Your task to perform on an android device: Empty the shopping cart on newegg. Search for "usb-b" on newegg, select the first entry, and add it to the cart. Image 0: 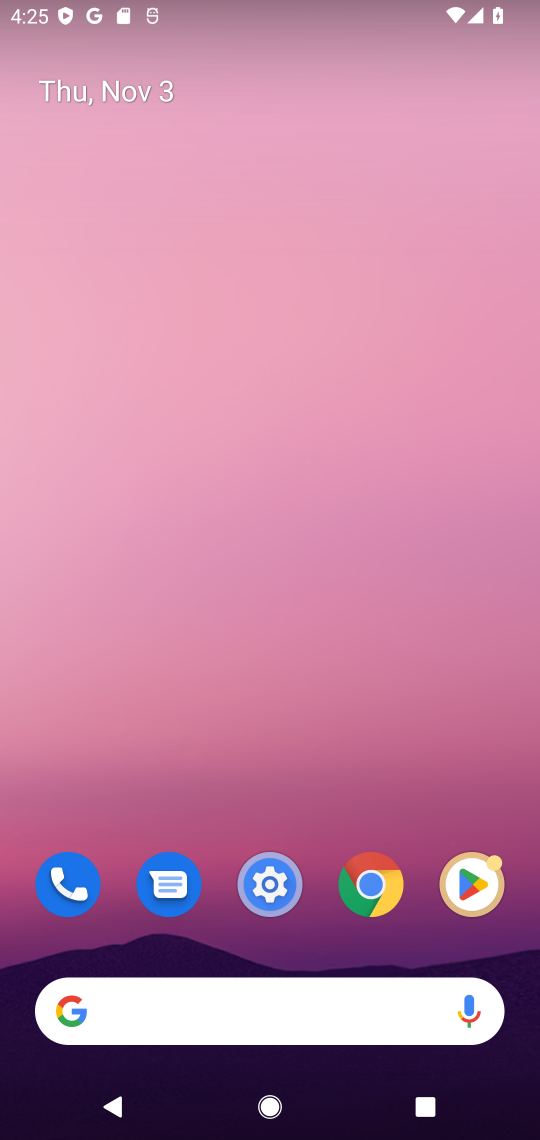
Step 0: press home button
Your task to perform on an android device: Empty the shopping cart on newegg. Search for "usb-b" on newegg, select the first entry, and add it to the cart. Image 1: 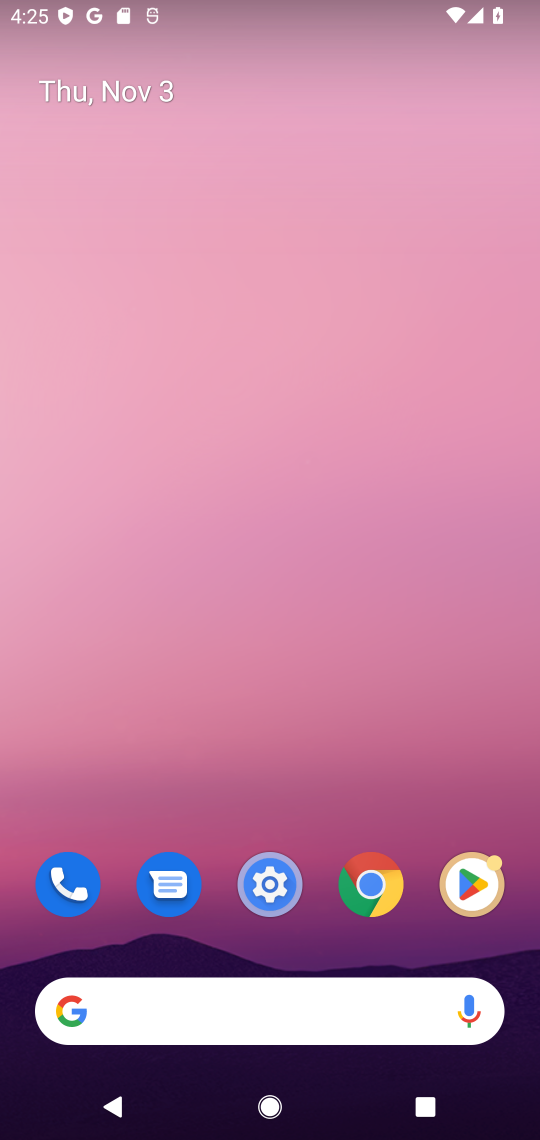
Step 1: click (110, 1013)
Your task to perform on an android device: Empty the shopping cart on newegg. Search for "usb-b" on newegg, select the first entry, and add it to the cart. Image 2: 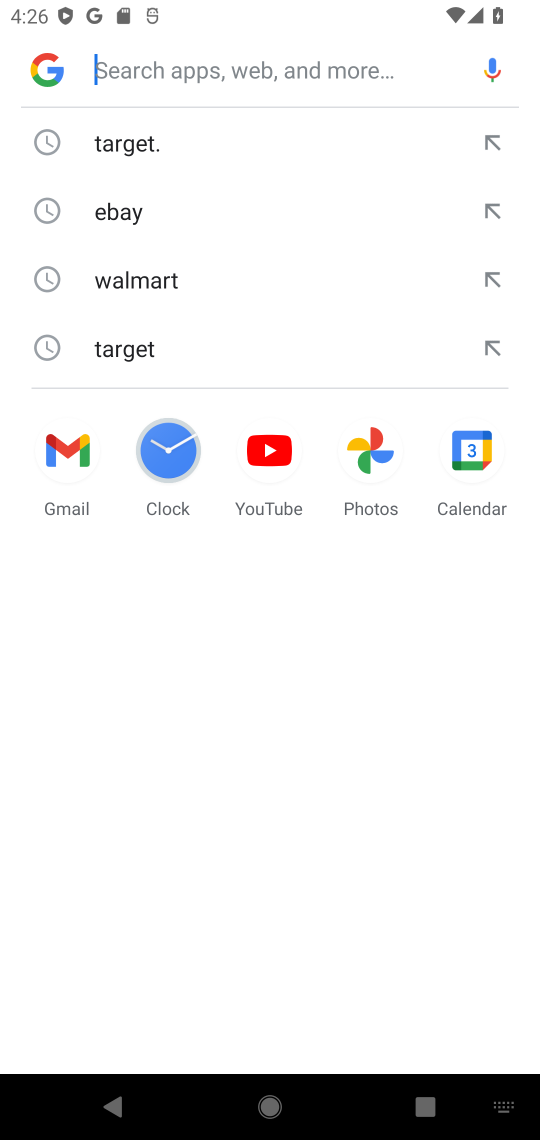
Step 2: type "newegg"
Your task to perform on an android device: Empty the shopping cart on newegg. Search for "usb-b" on newegg, select the first entry, and add it to the cart. Image 3: 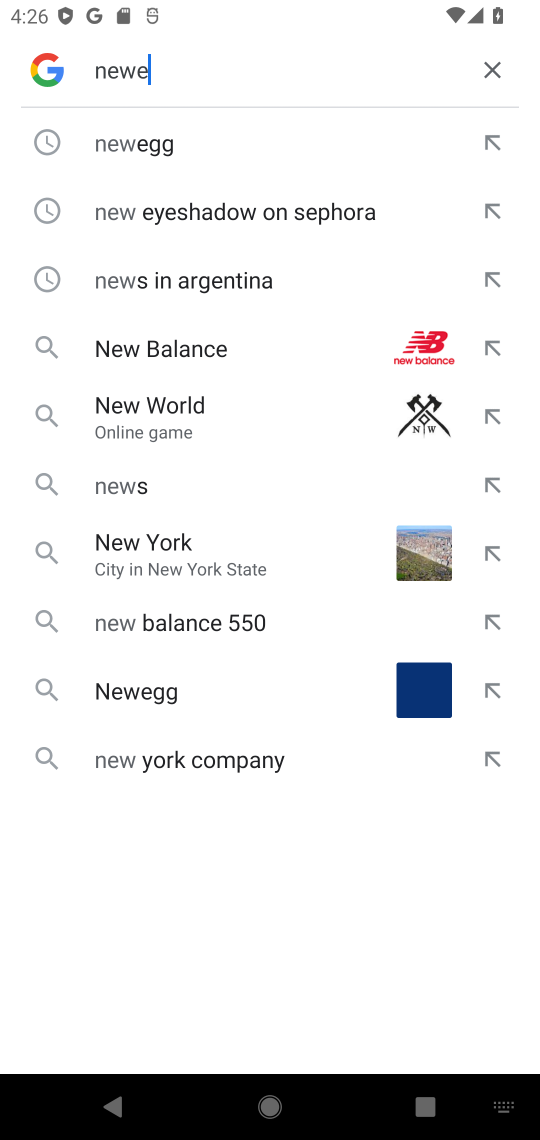
Step 3: press enter
Your task to perform on an android device: Empty the shopping cart on newegg. Search for "usb-b" on newegg, select the first entry, and add it to the cart. Image 4: 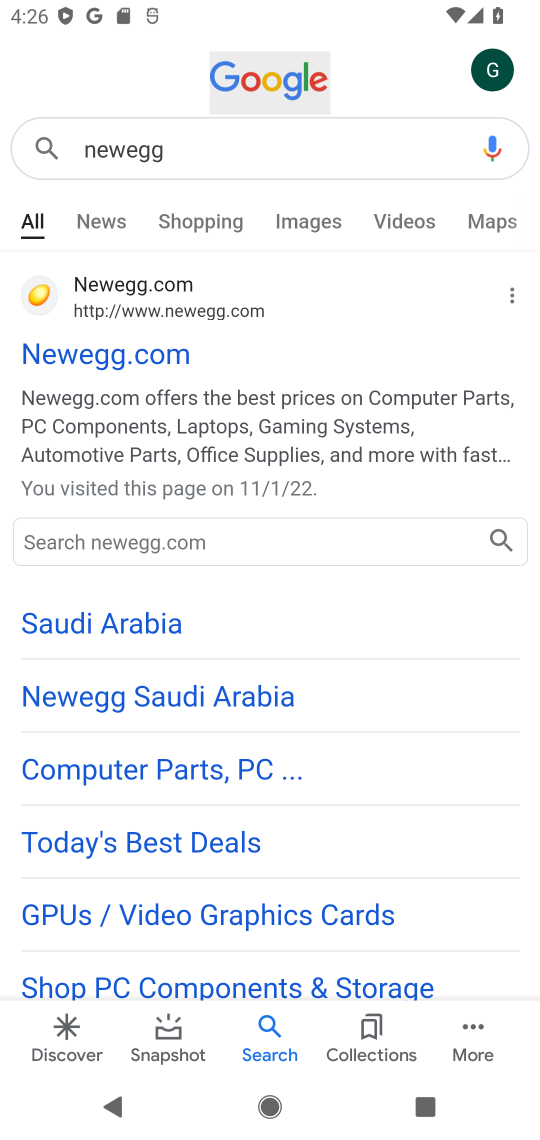
Step 4: click (118, 354)
Your task to perform on an android device: Empty the shopping cart on newegg. Search for "usb-b" on newegg, select the first entry, and add it to the cart. Image 5: 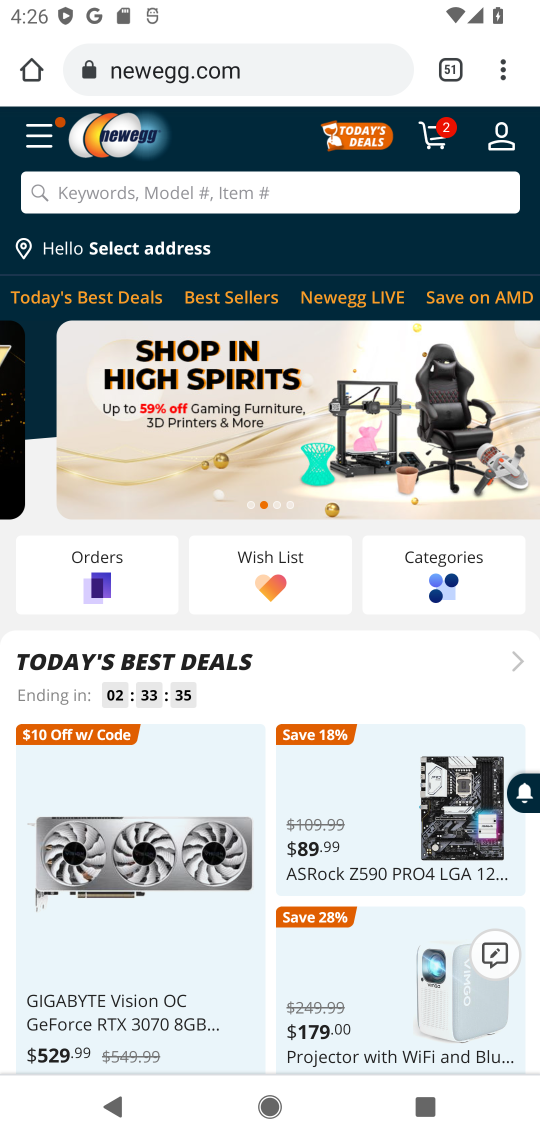
Step 5: click (435, 125)
Your task to perform on an android device: Empty the shopping cart on newegg. Search for "usb-b" on newegg, select the first entry, and add it to the cart. Image 6: 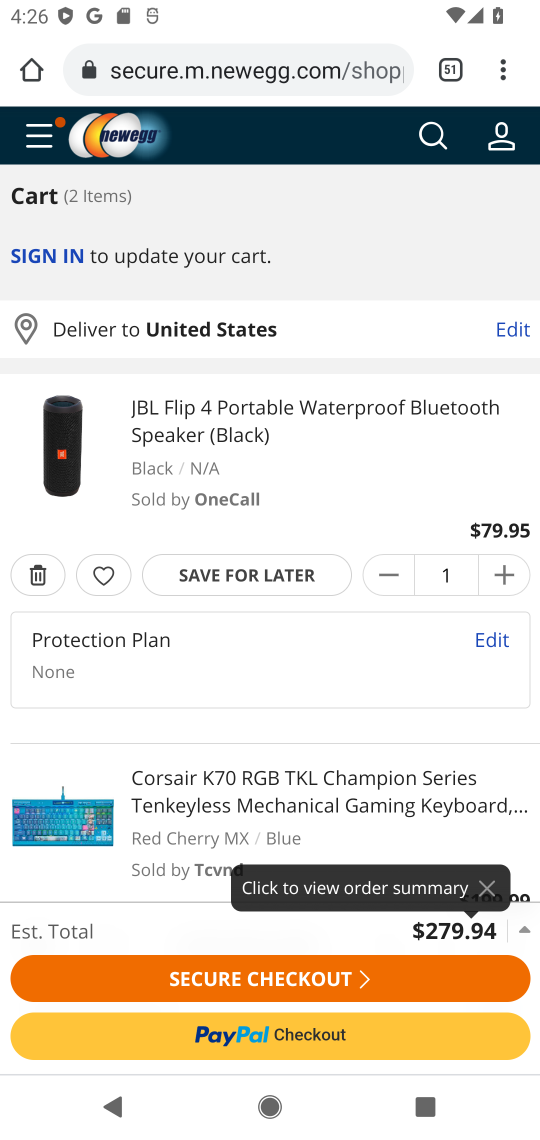
Step 6: click (36, 575)
Your task to perform on an android device: Empty the shopping cart on newegg. Search for "usb-b" on newegg, select the first entry, and add it to the cart. Image 7: 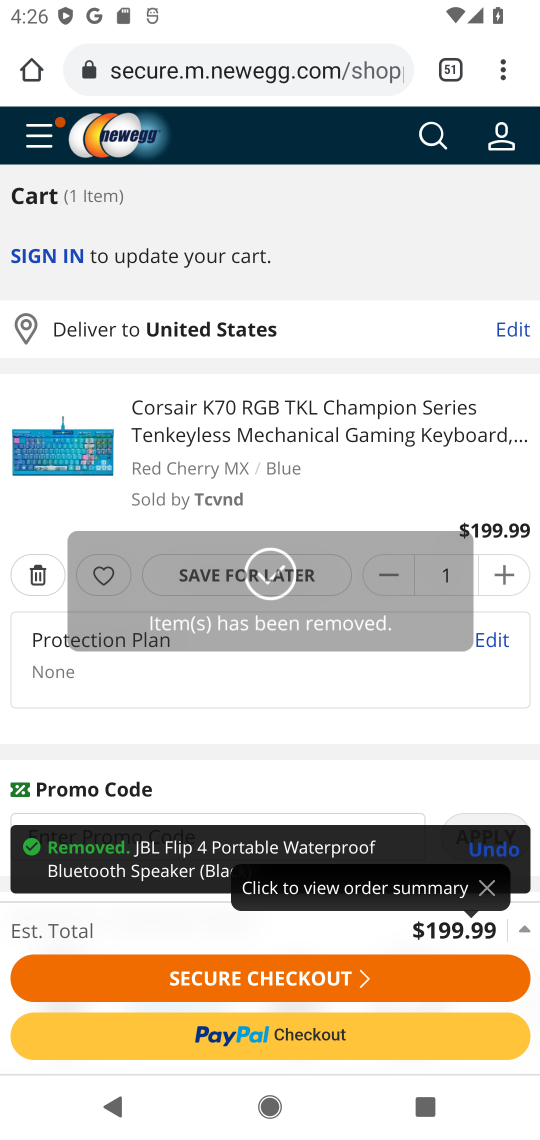
Step 7: click (36, 575)
Your task to perform on an android device: Empty the shopping cart on newegg. Search for "usb-b" on newegg, select the first entry, and add it to the cart. Image 8: 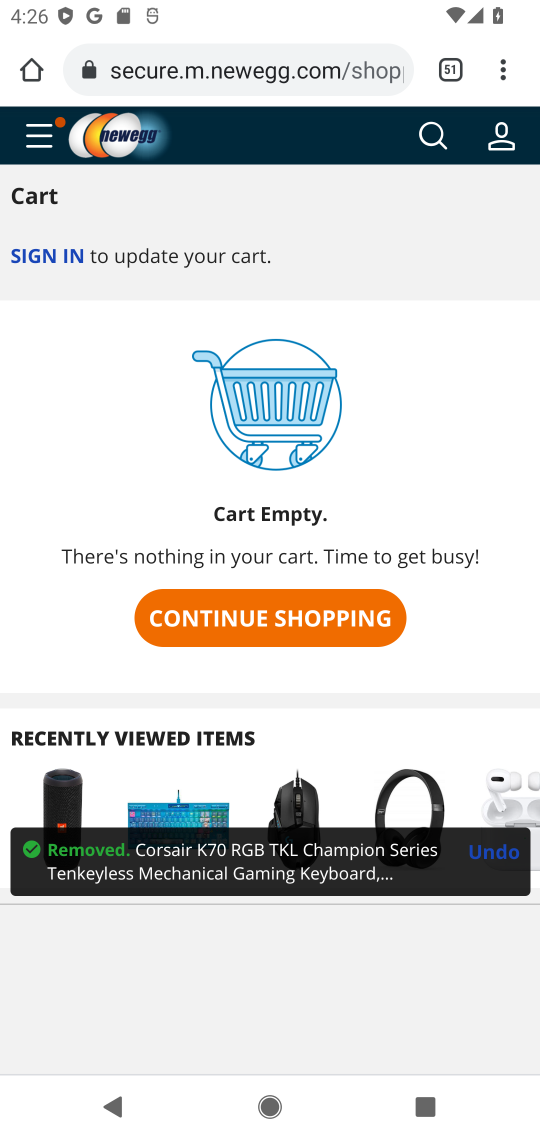
Step 8: click (433, 129)
Your task to perform on an android device: Empty the shopping cart on newegg. Search for "usb-b" on newegg, select the first entry, and add it to the cart. Image 9: 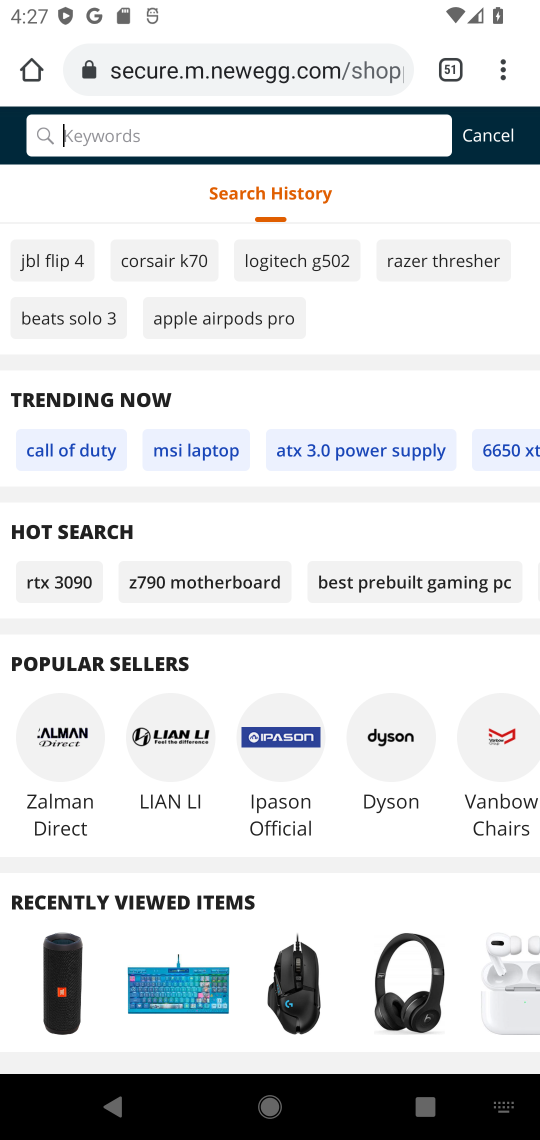
Step 9: type "usb-b"
Your task to perform on an android device: Empty the shopping cart on newegg. Search for "usb-b" on newegg, select the first entry, and add it to the cart. Image 10: 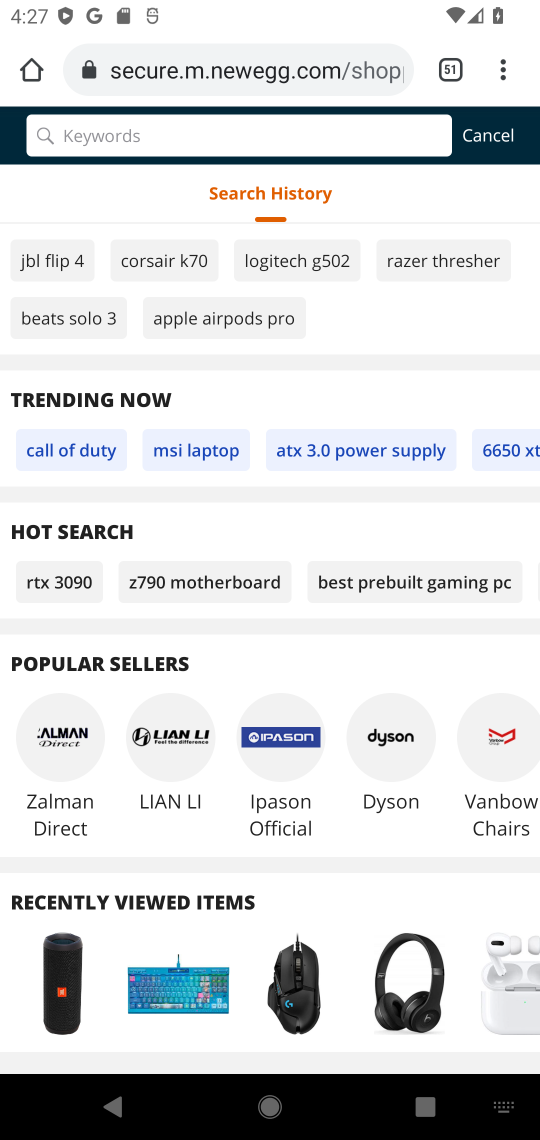
Step 10: press enter
Your task to perform on an android device: Empty the shopping cart on newegg. Search for "usb-b" on newegg, select the first entry, and add it to the cart. Image 11: 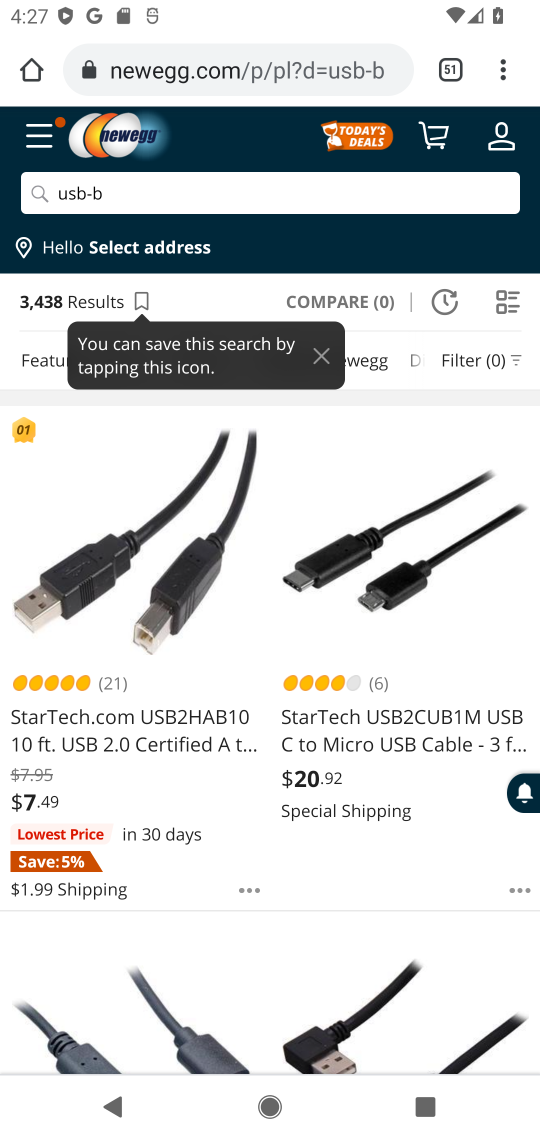
Step 11: drag from (300, 908) to (352, 537)
Your task to perform on an android device: Empty the shopping cart on newegg. Search for "usb-b" on newegg, select the first entry, and add it to the cart. Image 12: 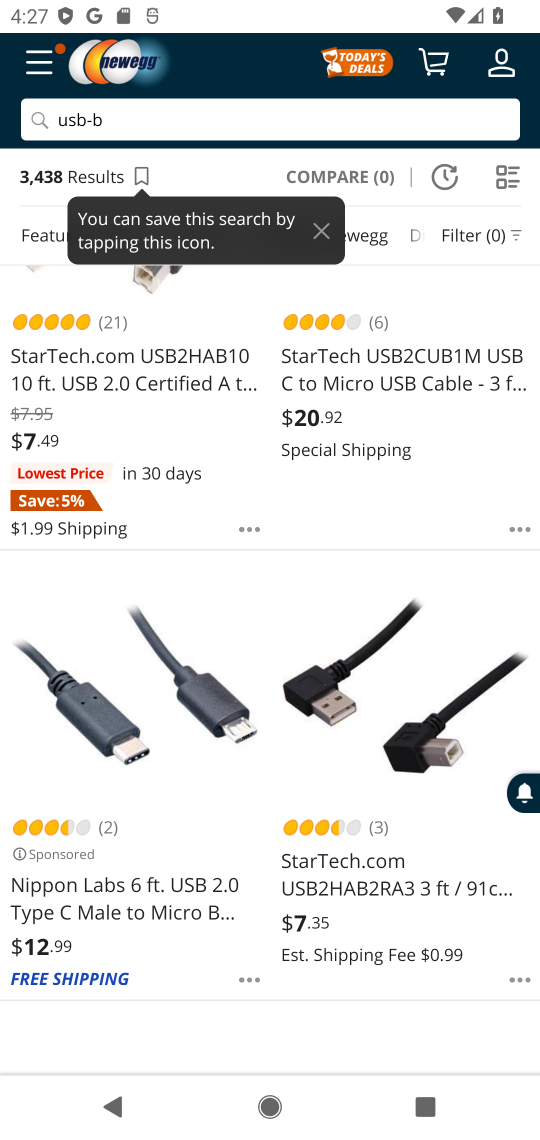
Step 12: drag from (330, 929) to (375, 615)
Your task to perform on an android device: Empty the shopping cart on newegg. Search for "usb-b" on newegg, select the first entry, and add it to the cart. Image 13: 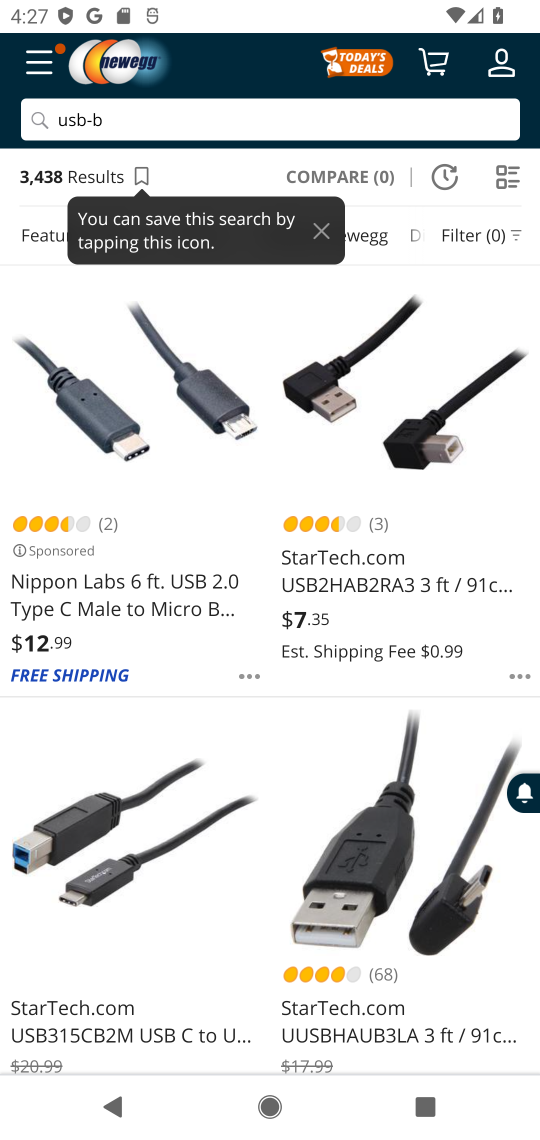
Step 13: drag from (363, 961) to (365, 627)
Your task to perform on an android device: Empty the shopping cart on newegg. Search for "usb-b" on newegg, select the first entry, and add it to the cart. Image 14: 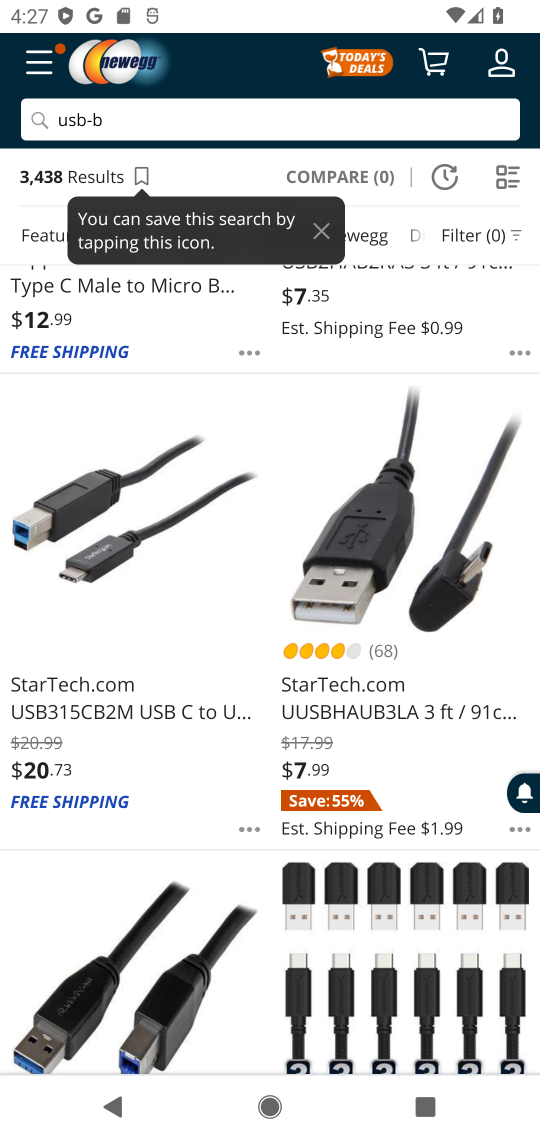
Step 14: drag from (339, 963) to (384, 612)
Your task to perform on an android device: Empty the shopping cart on newegg. Search for "usb-b" on newegg, select the first entry, and add it to the cart. Image 15: 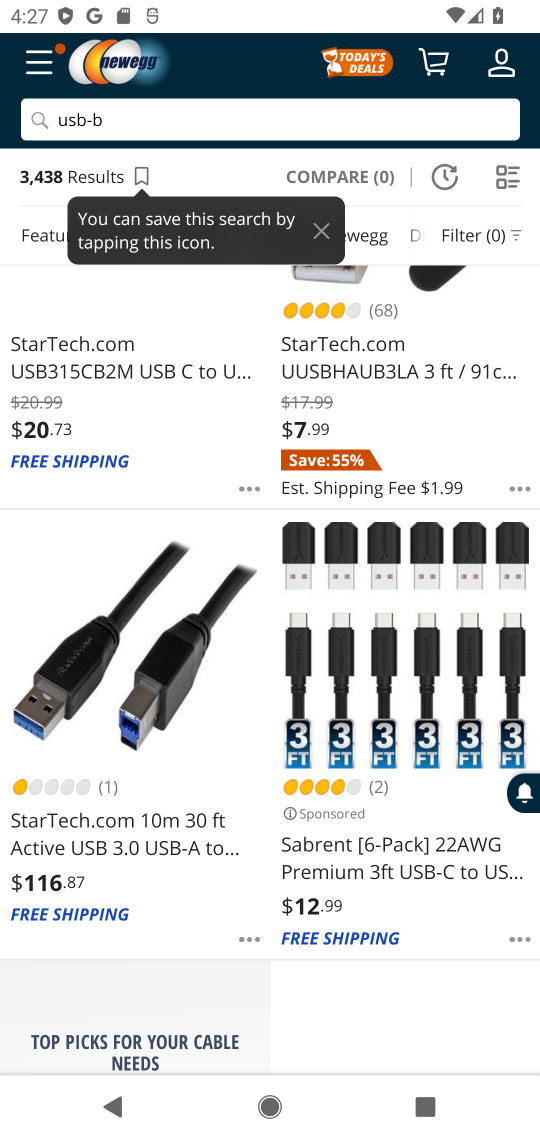
Step 15: drag from (363, 880) to (399, 530)
Your task to perform on an android device: Empty the shopping cart on newegg. Search for "usb-b" on newegg, select the first entry, and add it to the cart. Image 16: 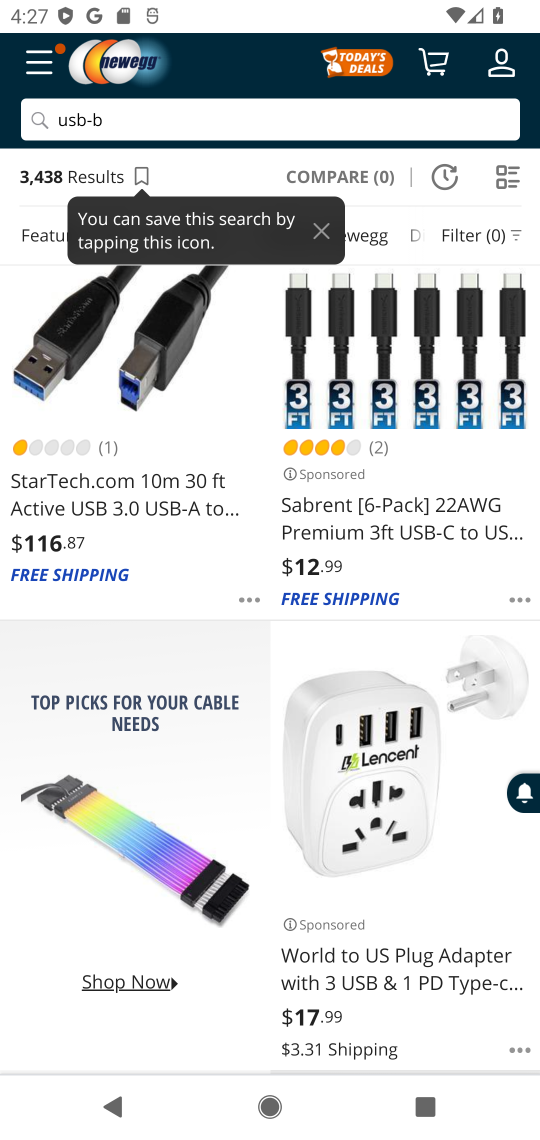
Step 16: drag from (360, 846) to (390, 474)
Your task to perform on an android device: Empty the shopping cart on newegg. Search for "usb-b" on newegg, select the first entry, and add it to the cart. Image 17: 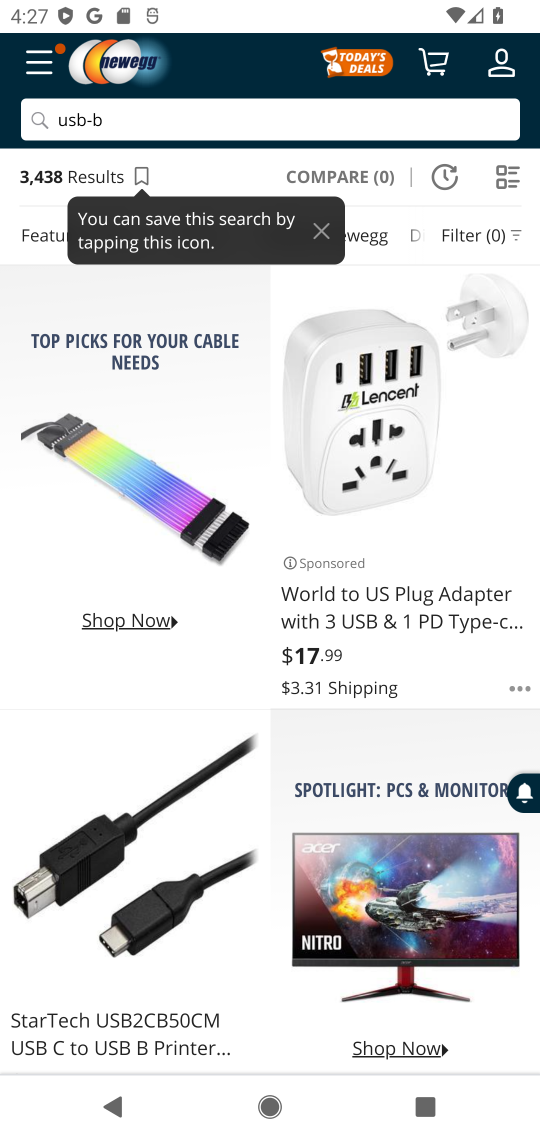
Step 17: drag from (331, 969) to (373, 565)
Your task to perform on an android device: Empty the shopping cart on newegg. Search for "usb-b" on newegg, select the first entry, and add it to the cart. Image 18: 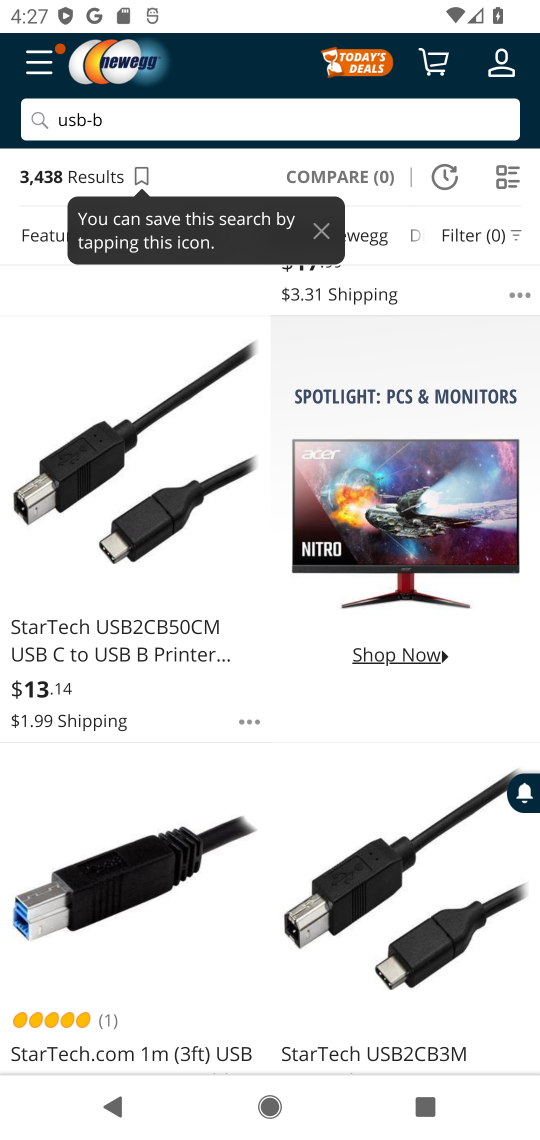
Step 18: drag from (312, 945) to (371, 587)
Your task to perform on an android device: Empty the shopping cart on newegg. Search for "usb-b" on newegg, select the first entry, and add it to the cart. Image 19: 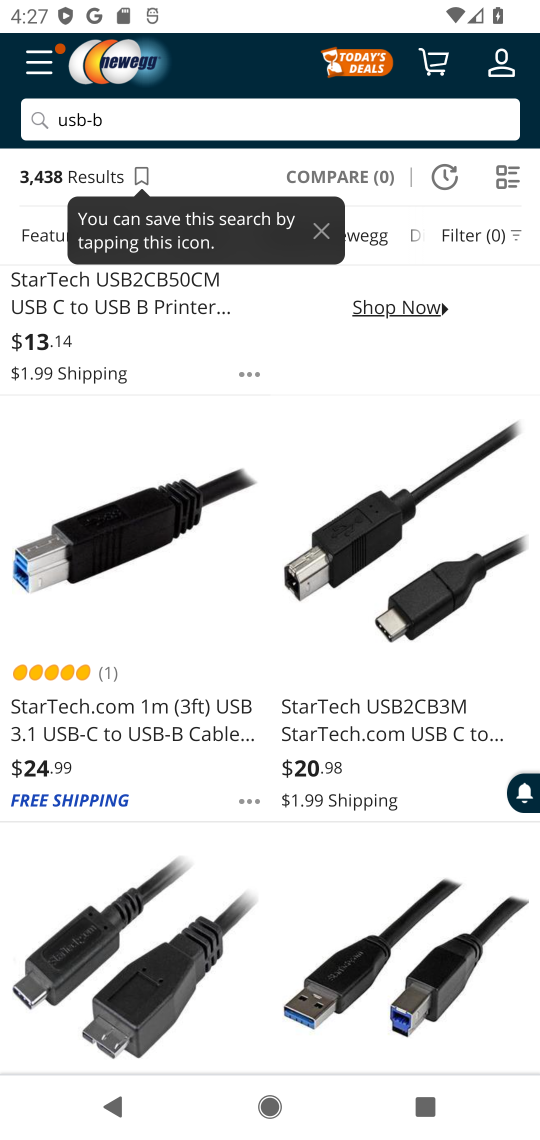
Step 19: drag from (351, 917) to (394, 620)
Your task to perform on an android device: Empty the shopping cart on newegg. Search for "usb-b" on newegg, select the first entry, and add it to the cart. Image 20: 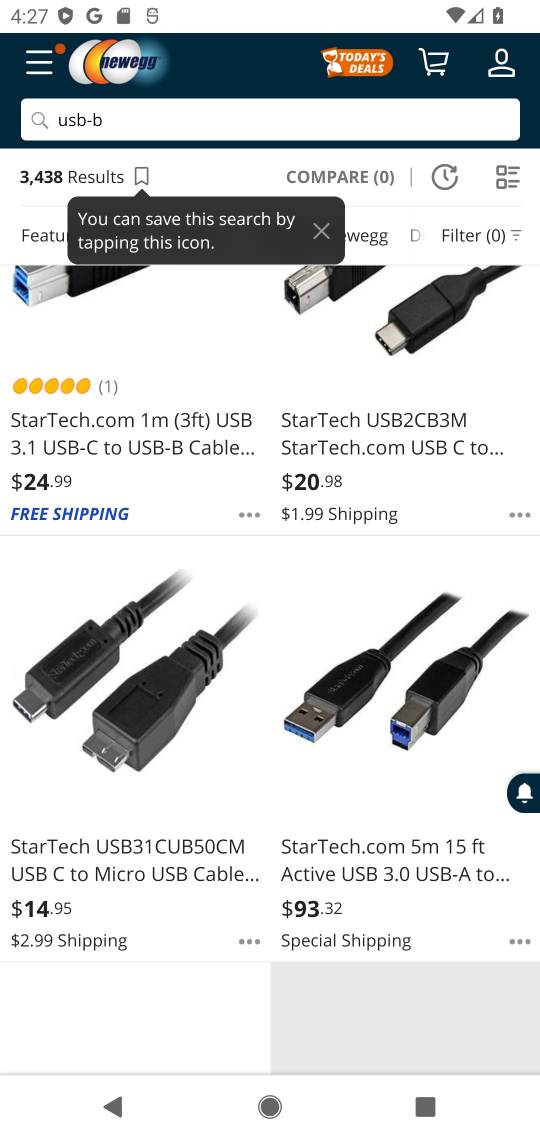
Step 20: drag from (240, 842) to (272, 538)
Your task to perform on an android device: Empty the shopping cart on newegg. Search for "usb-b" on newegg, select the first entry, and add it to the cart. Image 21: 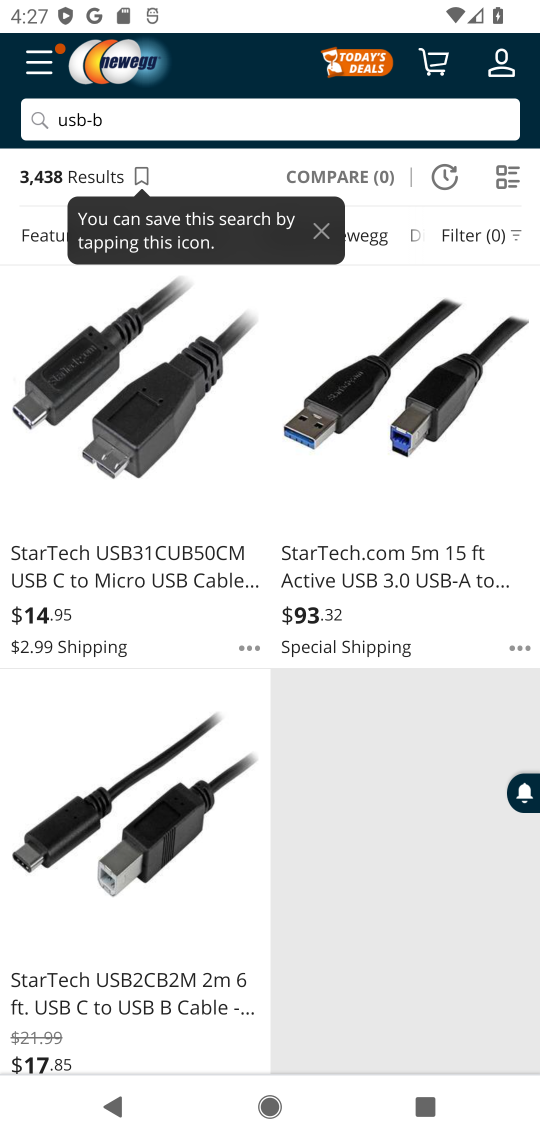
Step 21: click (133, 990)
Your task to perform on an android device: Empty the shopping cart on newegg. Search for "usb-b" on newegg, select the first entry, and add it to the cart. Image 22: 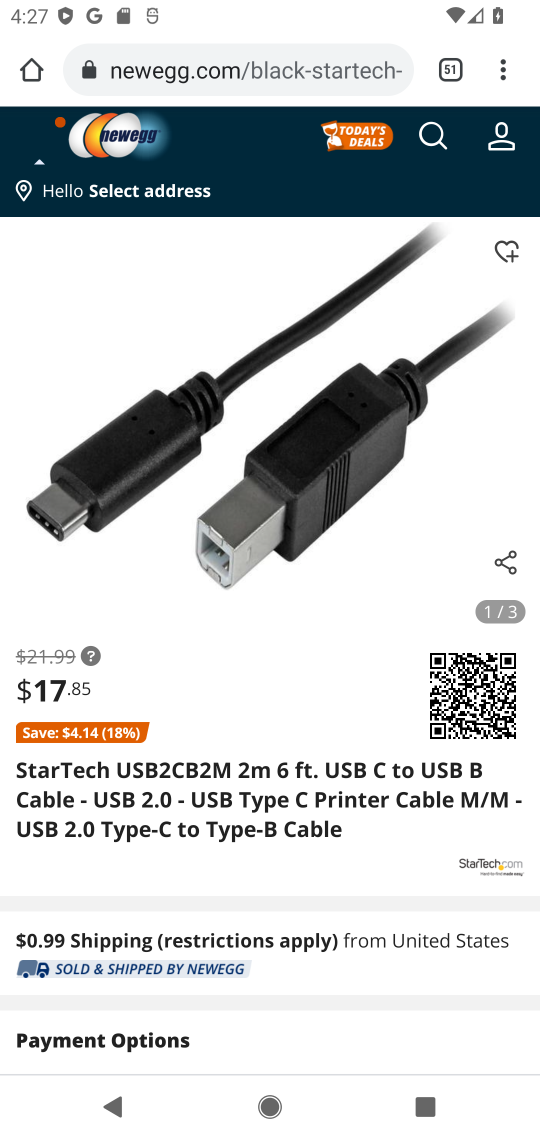
Step 22: click (249, 1053)
Your task to perform on an android device: Empty the shopping cart on newegg. Search for "usb-b" on newegg, select the first entry, and add it to the cart. Image 23: 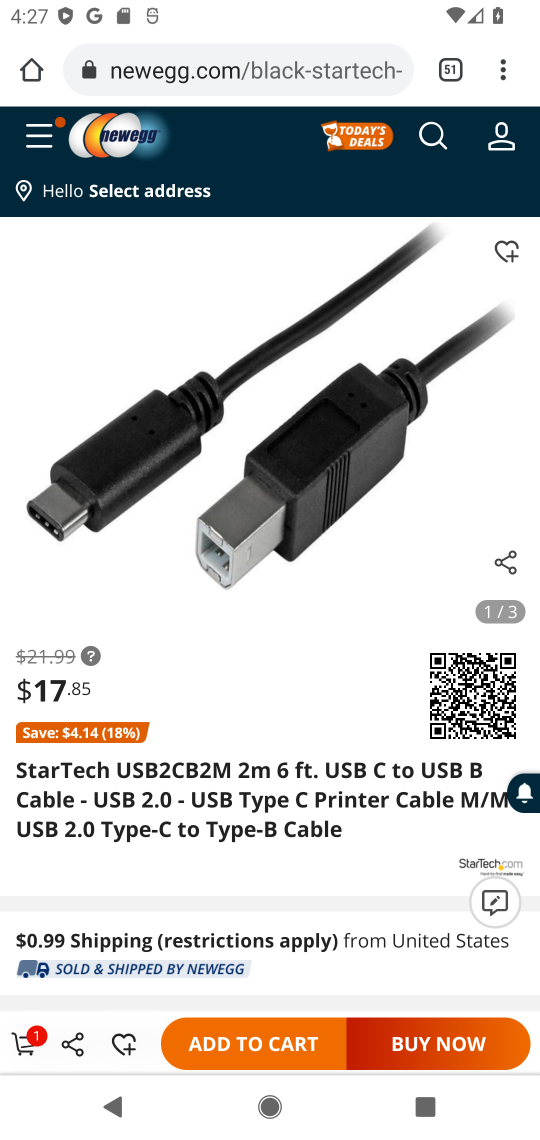
Step 23: task complete